Your task to perform on an android device: Open Chrome and go to the settings page Image 0: 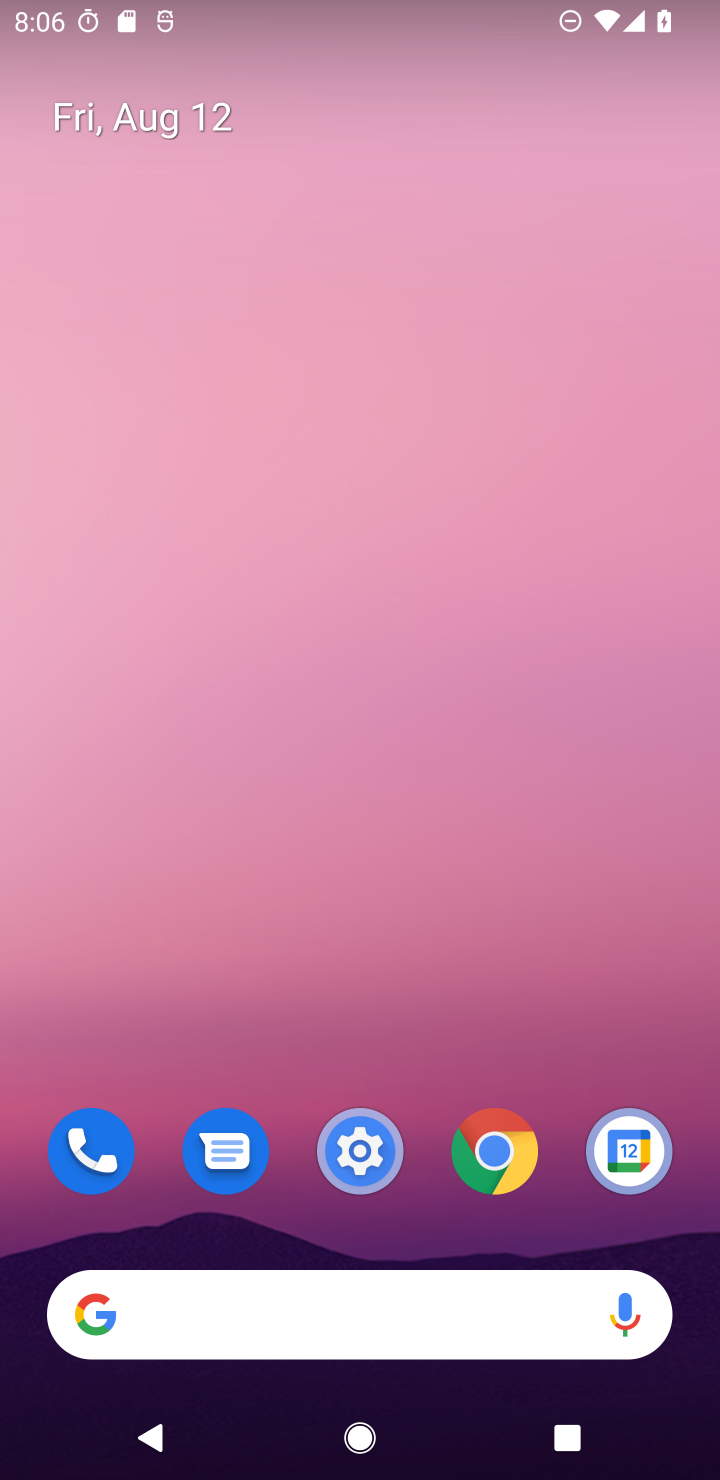
Step 0: drag from (424, 928) to (552, 116)
Your task to perform on an android device: Open Chrome and go to the settings page Image 1: 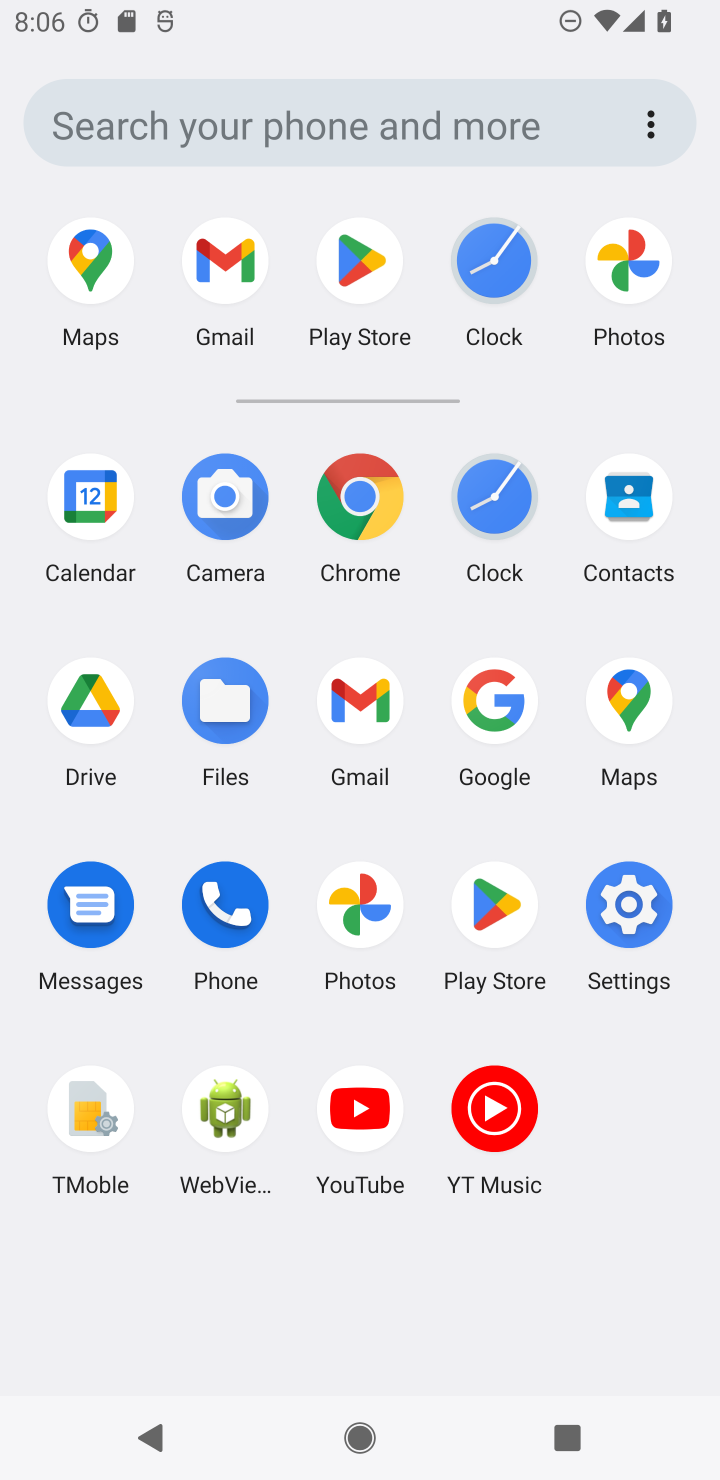
Step 1: click (348, 496)
Your task to perform on an android device: Open Chrome and go to the settings page Image 2: 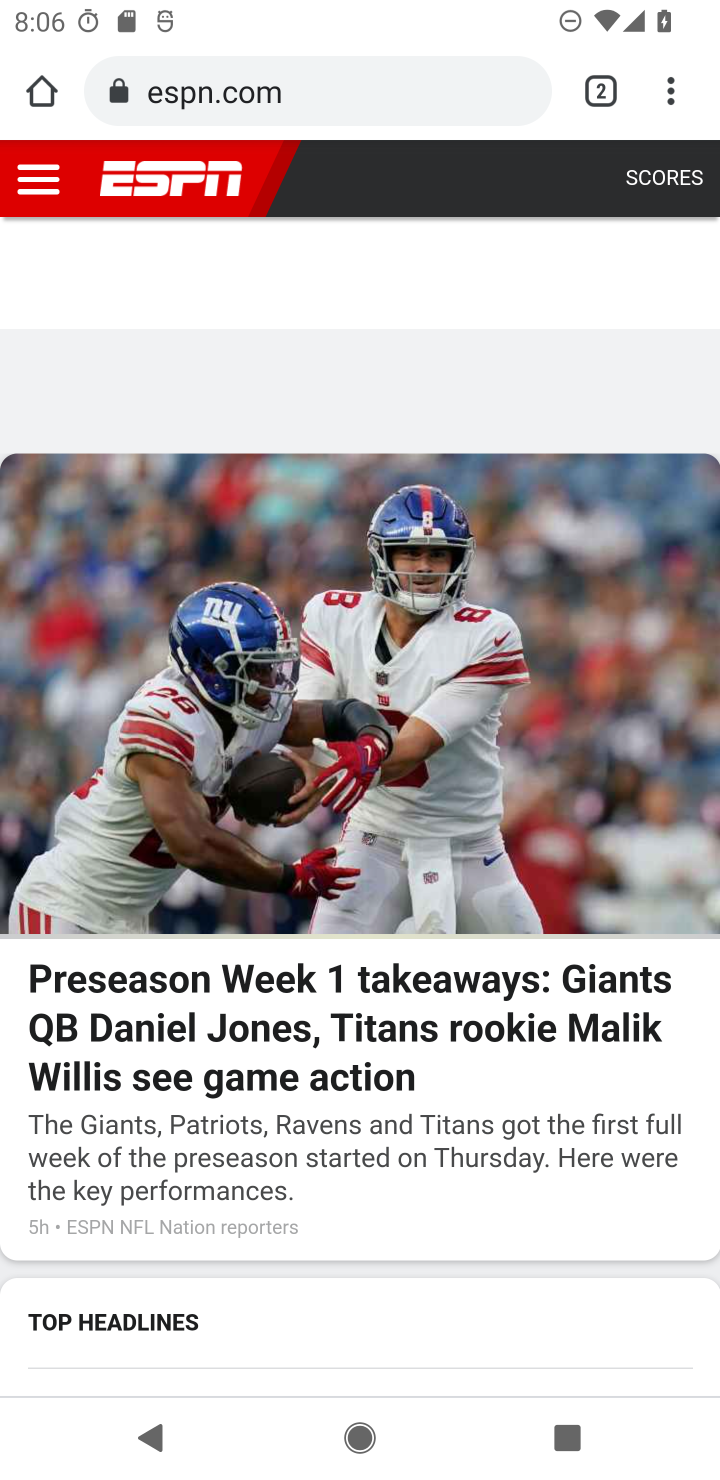
Step 2: task complete